Your task to perform on an android device: stop showing notifications on the lock screen Image 0: 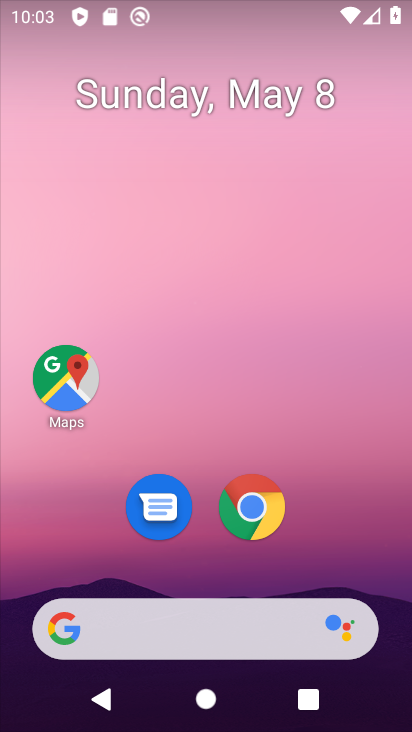
Step 0: drag from (321, 567) to (300, 24)
Your task to perform on an android device: stop showing notifications on the lock screen Image 1: 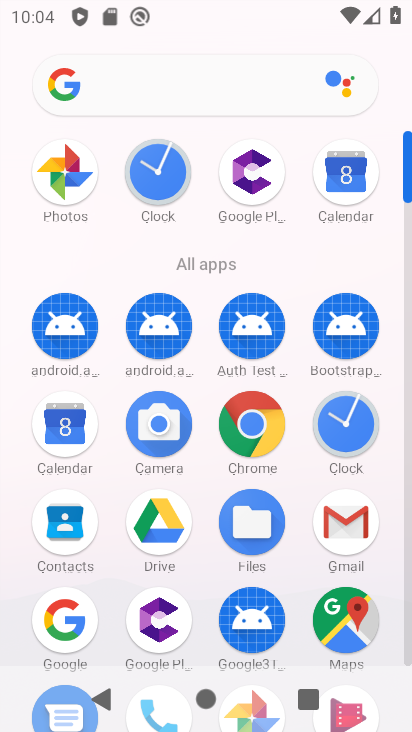
Step 1: drag from (202, 591) to (216, 305)
Your task to perform on an android device: stop showing notifications on the lock screen Image 2: 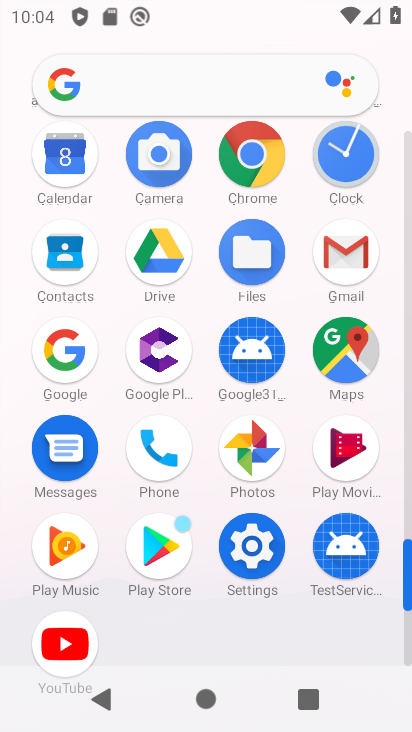
Step 2: click (260, 563)
Your task to perform on an android device: stop showing notifications on the lock screen Image 3: 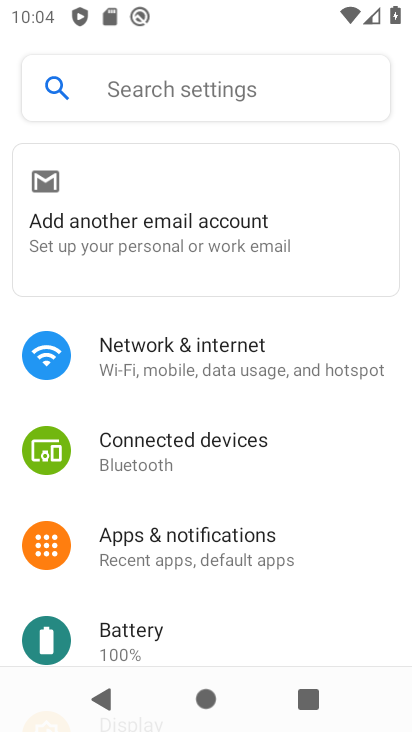
Step 3: click (191, 562)
Your task to perform on an android device: stop showing notifications on the lock screen Image 4: 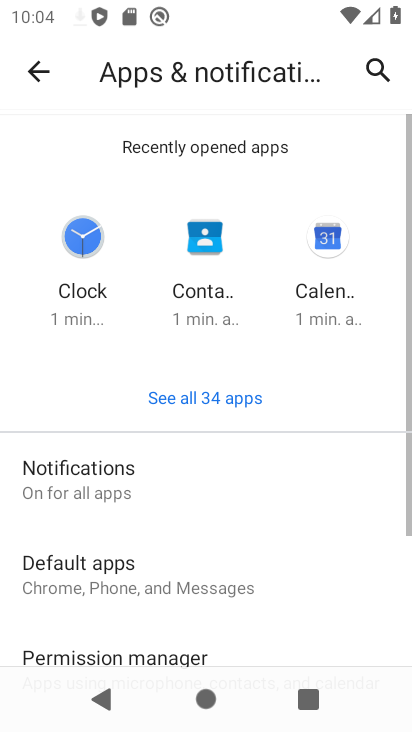
Step 4: click (140, 474)
Your task to perform on an android device: stop showing notifications on the lock screen Image 5: 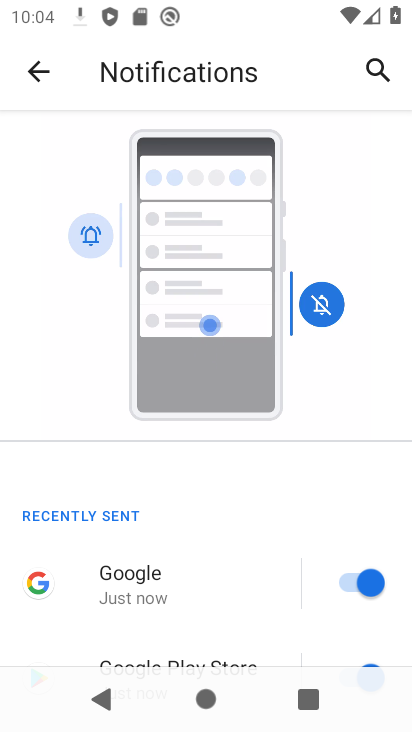
Step 5: drag from (162, 625) to (209, 273)
Your task to perform on an android device: stop showing notifications on the lock screen Image 6: 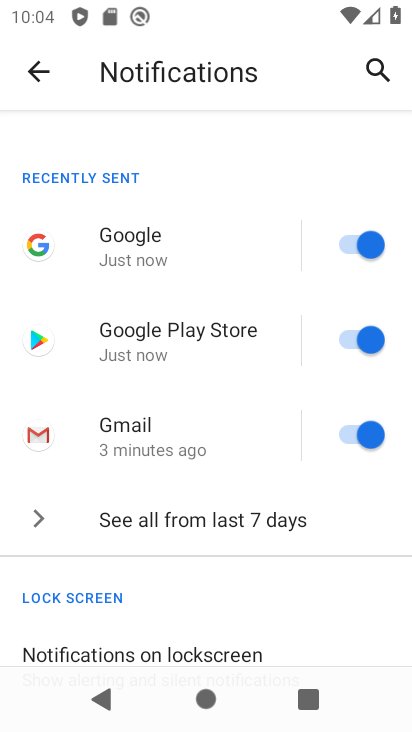
Step 6: drag from (191, 605) to (205, 199)
Your task to perform on an android device: stop showing notifications on the lock screen Image 7: 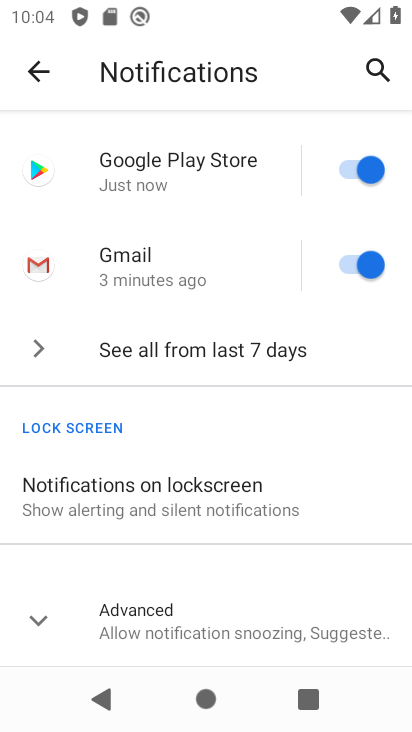
Step 7: click (159, 507)
Your task to perform on an android device: stop showing notifications on the lock screen Image 8: 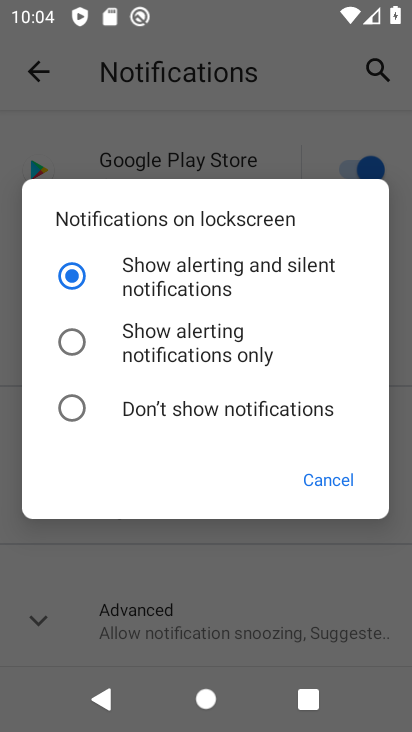
Step 8: click (197, 407)
Your task to perform on an android device: stop showing notifications on the lock screen Image 9: 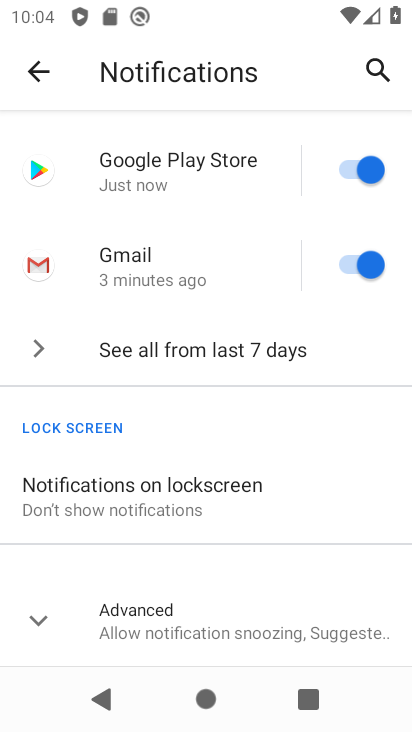
Step 9: task complete